Your task to perform on an android device: turn off notifications settings in the gmail app Image 0: 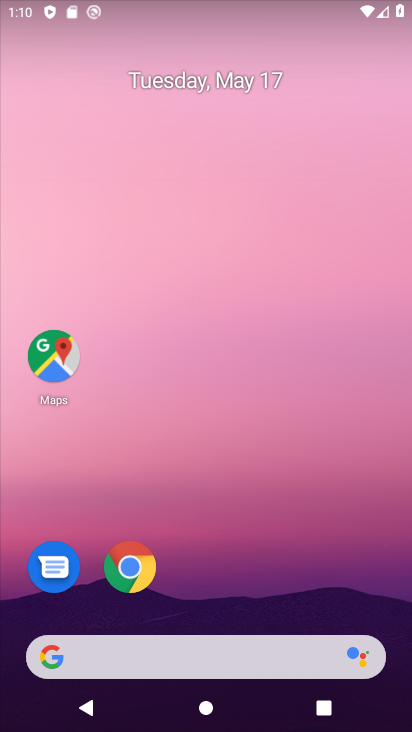
Step 0: drag from (392, 615) to (293, 105)
Your task to perform on an android device: turn off notifications settings in the gmail app Image 1: 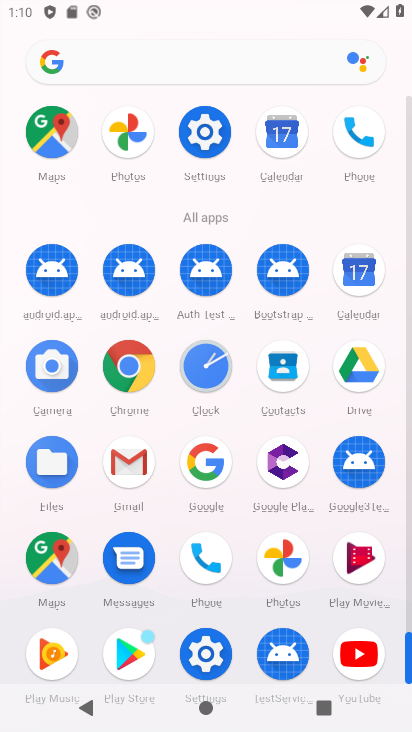
Step 1: click (129, 461)
Your task to perform on an android device: turn off notifications settings in the gmail app Image 2: 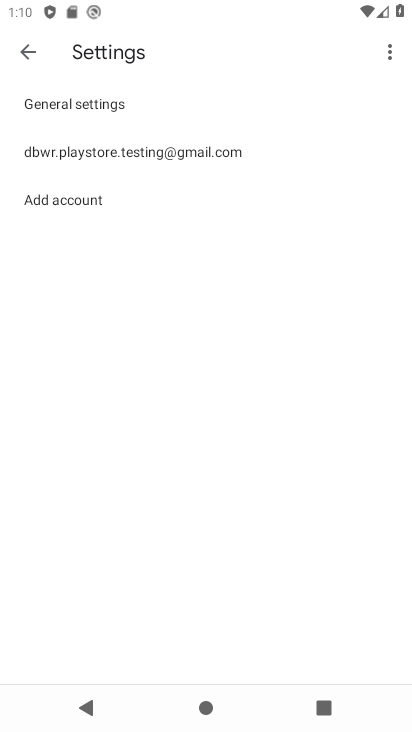
Step 2: click (100, 152)
Your task to perform on an android device: turn off notifications settings in the gmail app Image 3: 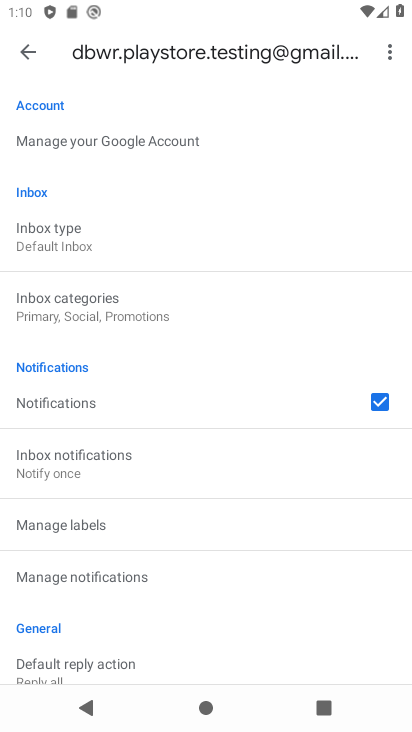
Step 3: drag from (169, 539) to (174, 324)
Your task to perform on an android device: turn off notifications settings in the gmail app Image 4: 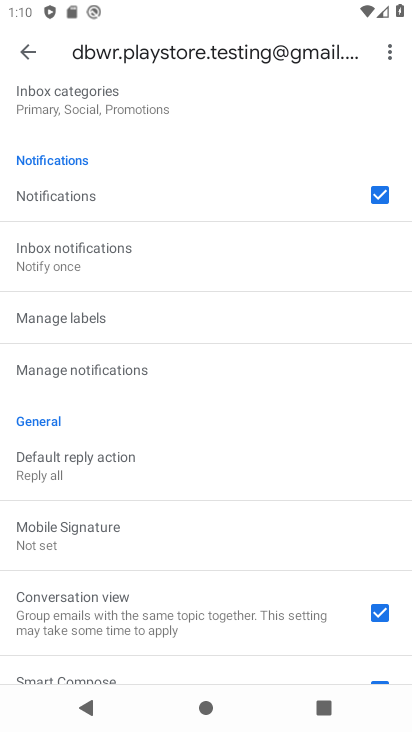
Step 4: click (58, 369)
Your task to perform on an android device: turn off notifications settings in the gmail app Image 5: 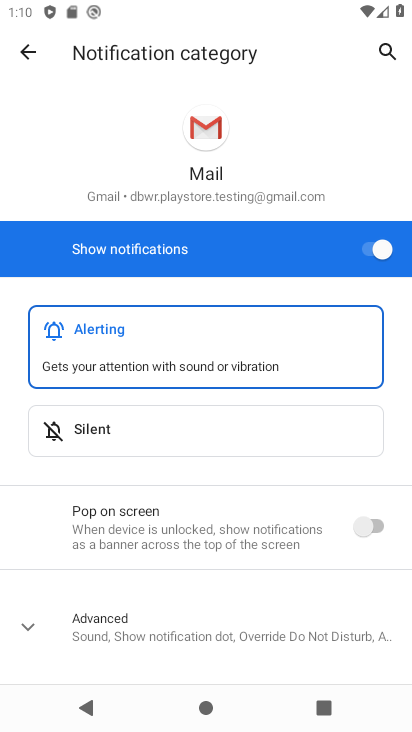
Step 5: click (364, 243)
Your task to perform on an android device: turn off notifications settings in the gmail app Image 6: 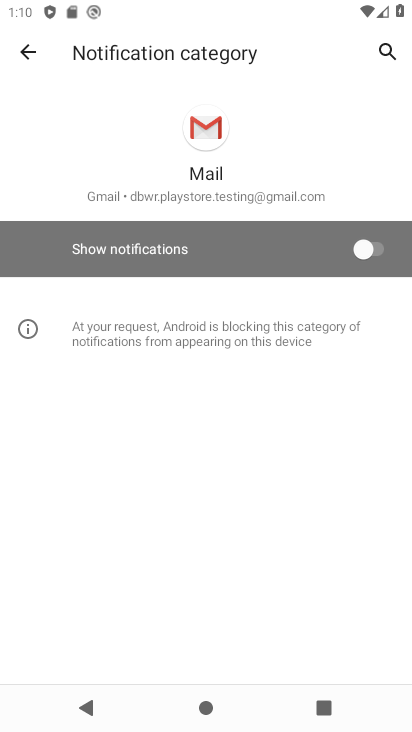
Step 6: task complete